Your task to perform on an android device: turn on wifi Image 0: 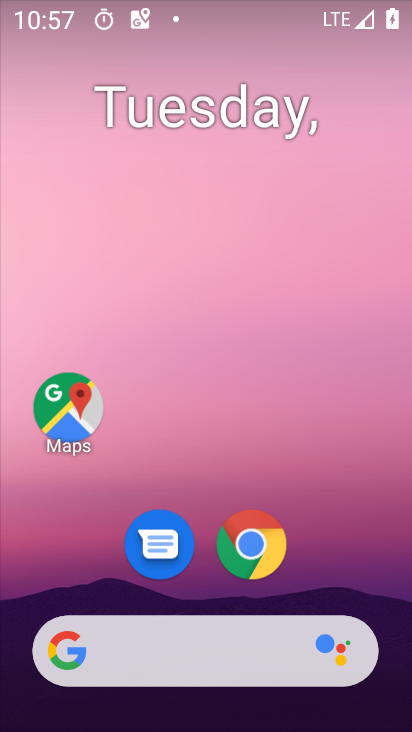
Step 0: drag from (318, 561) to (237, 75)
Your task to perform on an android device: turn on wifi Image 1: 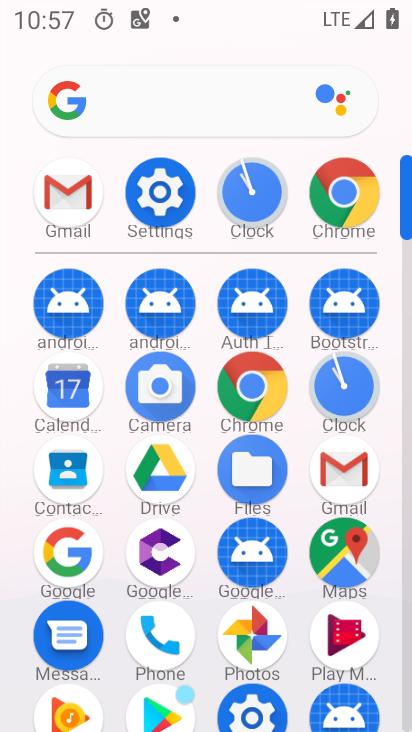
Step 1: click (187, 172)
Your task to perform on an android device: turn on wifi Image 2: 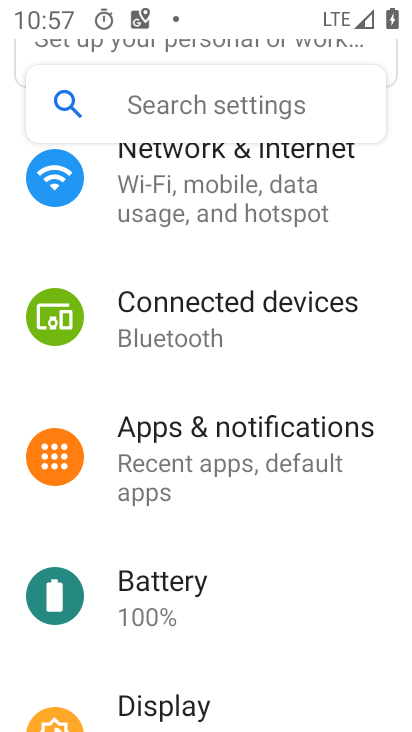
Step 2: click (239, 203)
Your task to perform on an android device: turn on wifi Image 3: 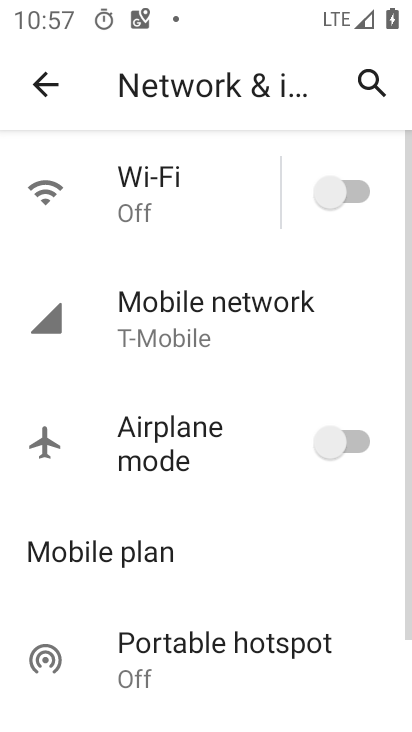
Step 3: click (323, 189)
Your task to perform on an android device: turn on wifi Image 4: 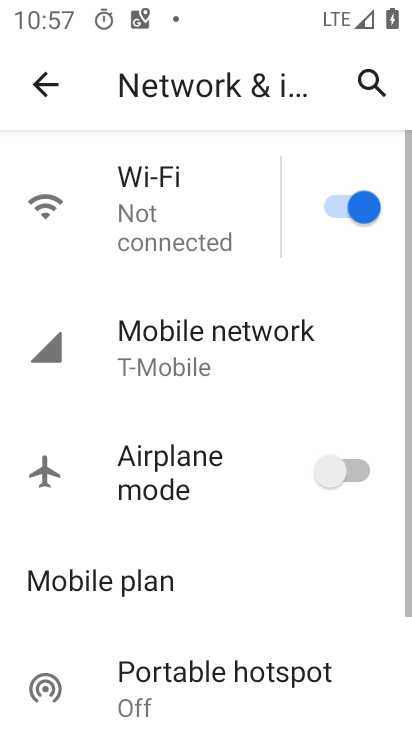
Step 4: task complete